Your task to perform on an android device: Open CNN.com Image 0: 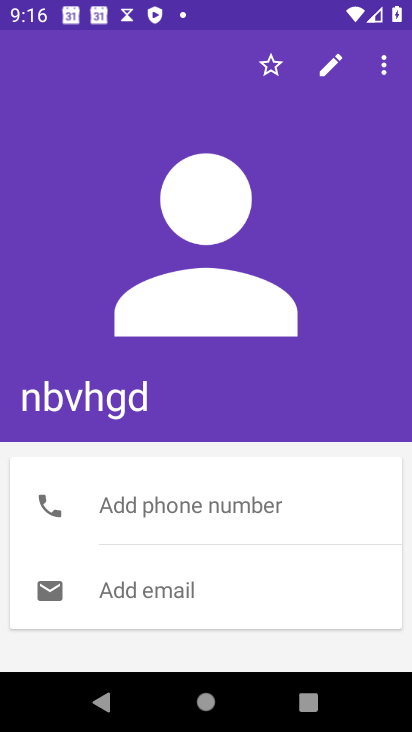
Step 0: press home button
Your task to perform on an android device: Open CNN.com Image 1: 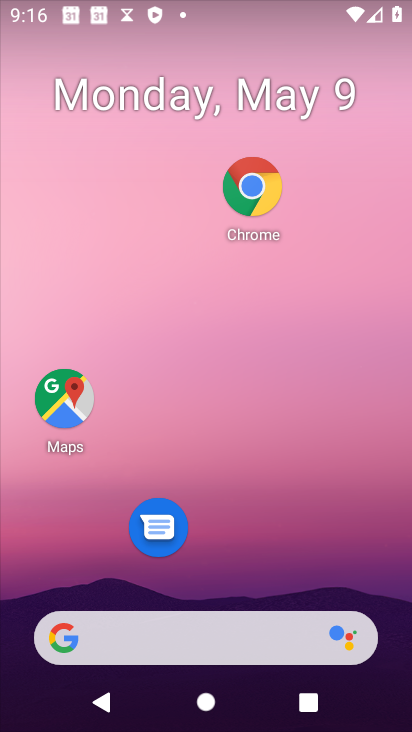
Step 1: click (251, 186)
Your task to perform on an android device: Open CNN.com Image 2: 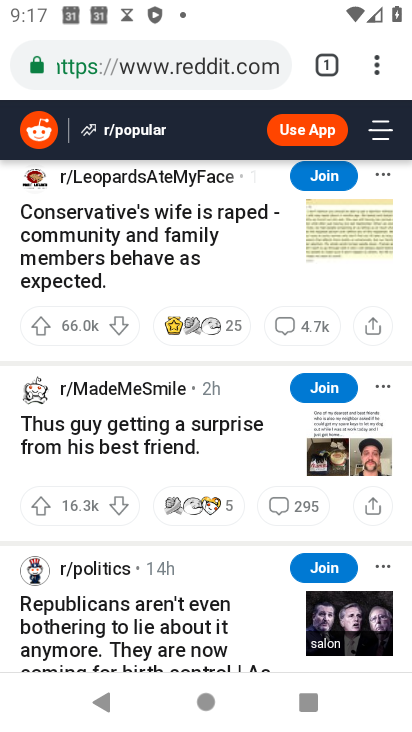
Step 2: click (316, 67)
Your task to perform on an android device: Open CNN.com Image 3: 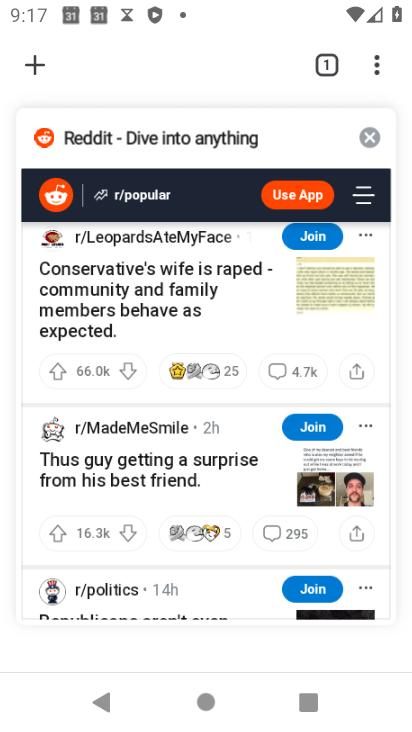
Step 3: click (369, 132)
Your task to perform on an android device: Open CNN.com Image 4: 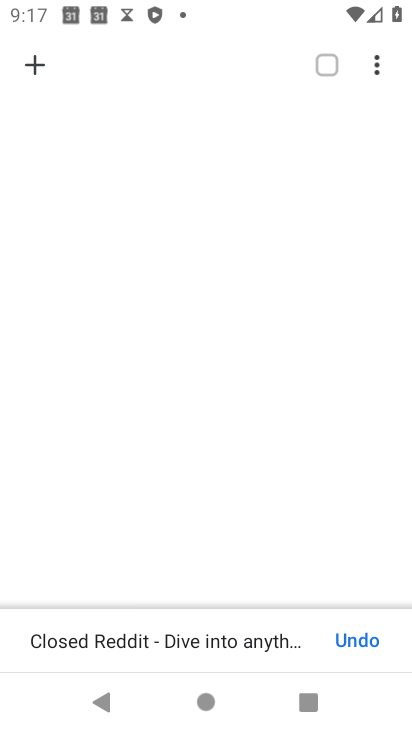
Step 4: click (38, 71)
Your task to perform on an android device: Open CNN.com Image 5: 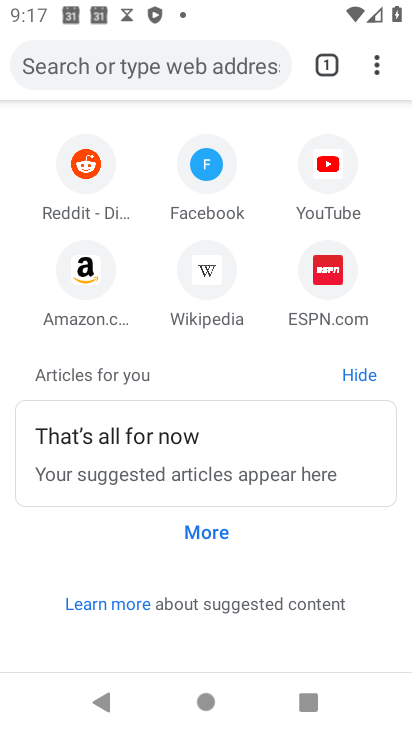
Step 5: click (133, 61)
Your task to perform on an android device: Open CNN.com Image 6: 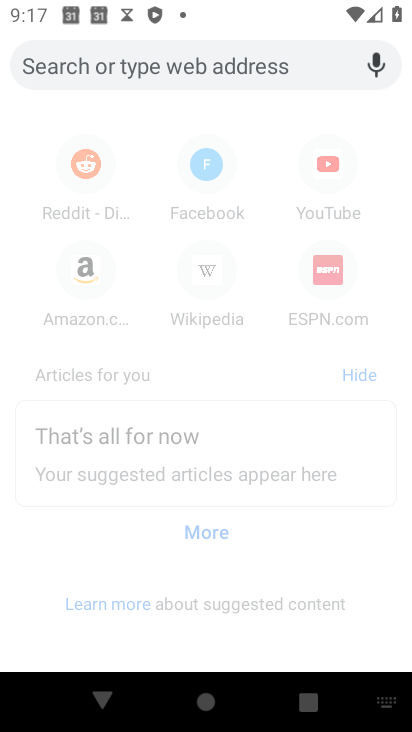
Step 6: type "cnn.com"
Your task to perform on an android device: Open CNN.com Image 7: 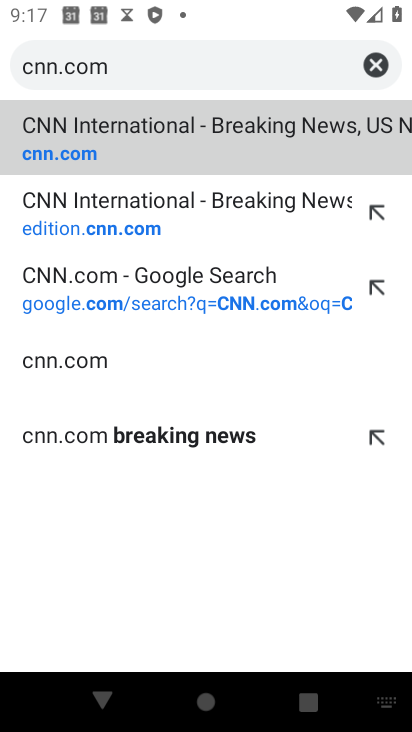
Step 7: click (176, 128)
Your task to perform on an android device: Open CNN.com Image 8: 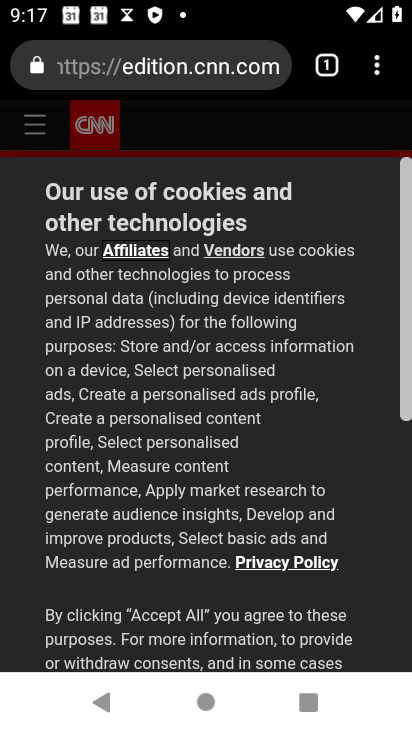
Step 8: task complete